Your task to perform on an android device: turn on notifications settings in the gmail app Image 0: 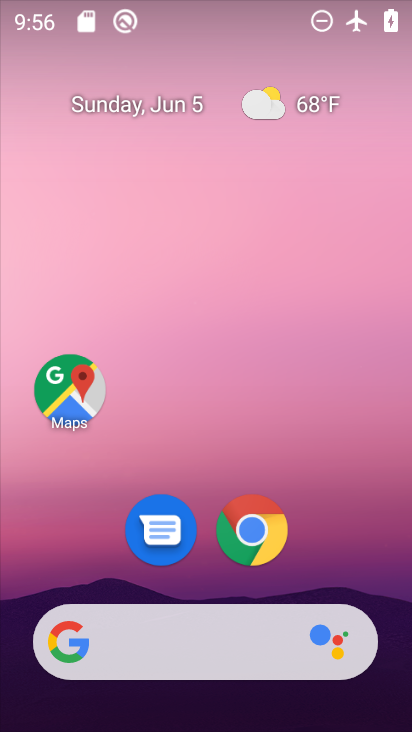
Step 0: drag from (397, 618) to (325, 165)
Your task to perform on an android device: turn on notifications settings in the gmail app Image 1: 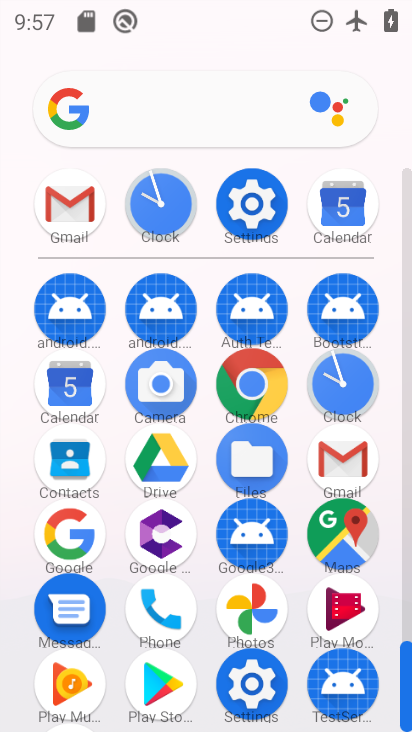
Step 1: click (341, 458)
Your task to perform on an android device: turn on notifications settings in the gmail app Image 2: 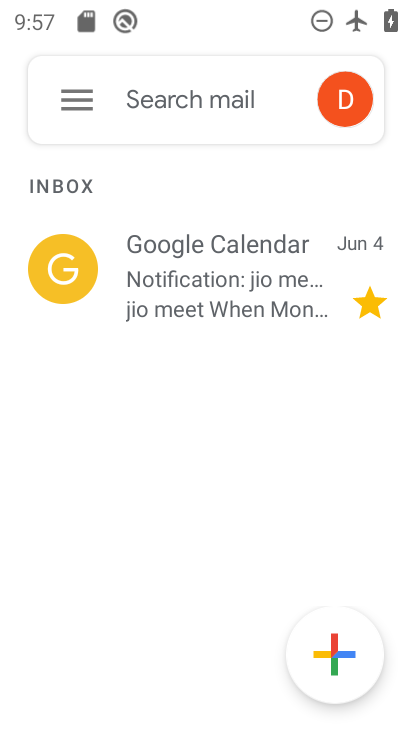
Step 2: click (71, 99)
Your task to perform on an android device: turn on notifications settings in the gmail app Image 3: 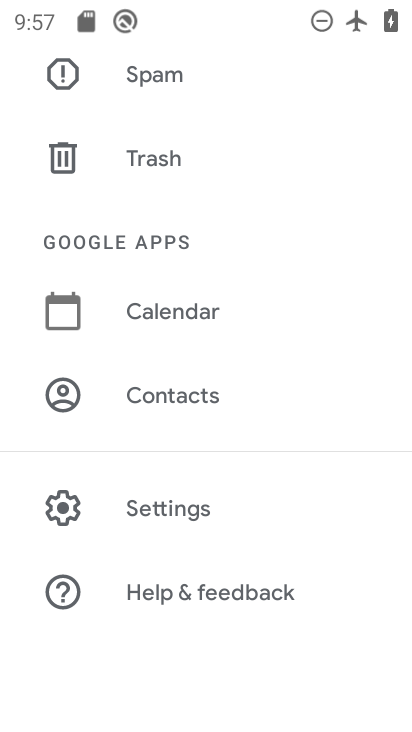
Step 3: click (182, 508)
Your task to perform on an android device: turn on notifications settings in the gmail app Image 4: 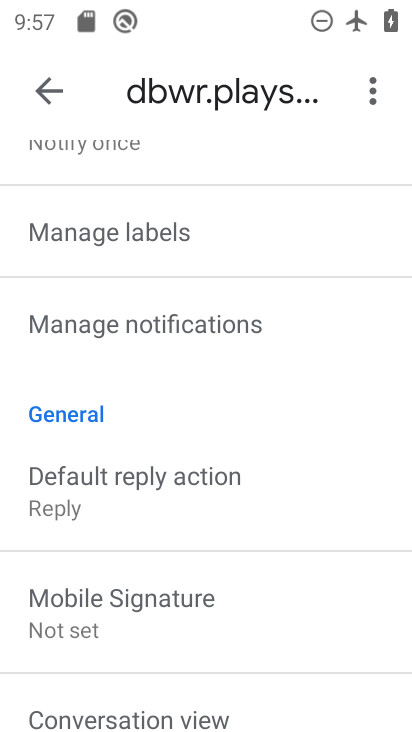
Step 4: click (138, 323)
Your task to perform on an android device: turn on notifications settings in the gmail app Image 5: 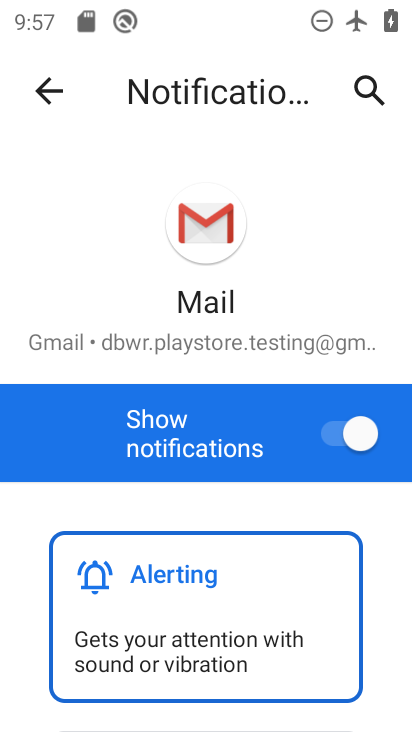
Step 5: task complete